Your task to perform on an android device: Go to settings Image 0: 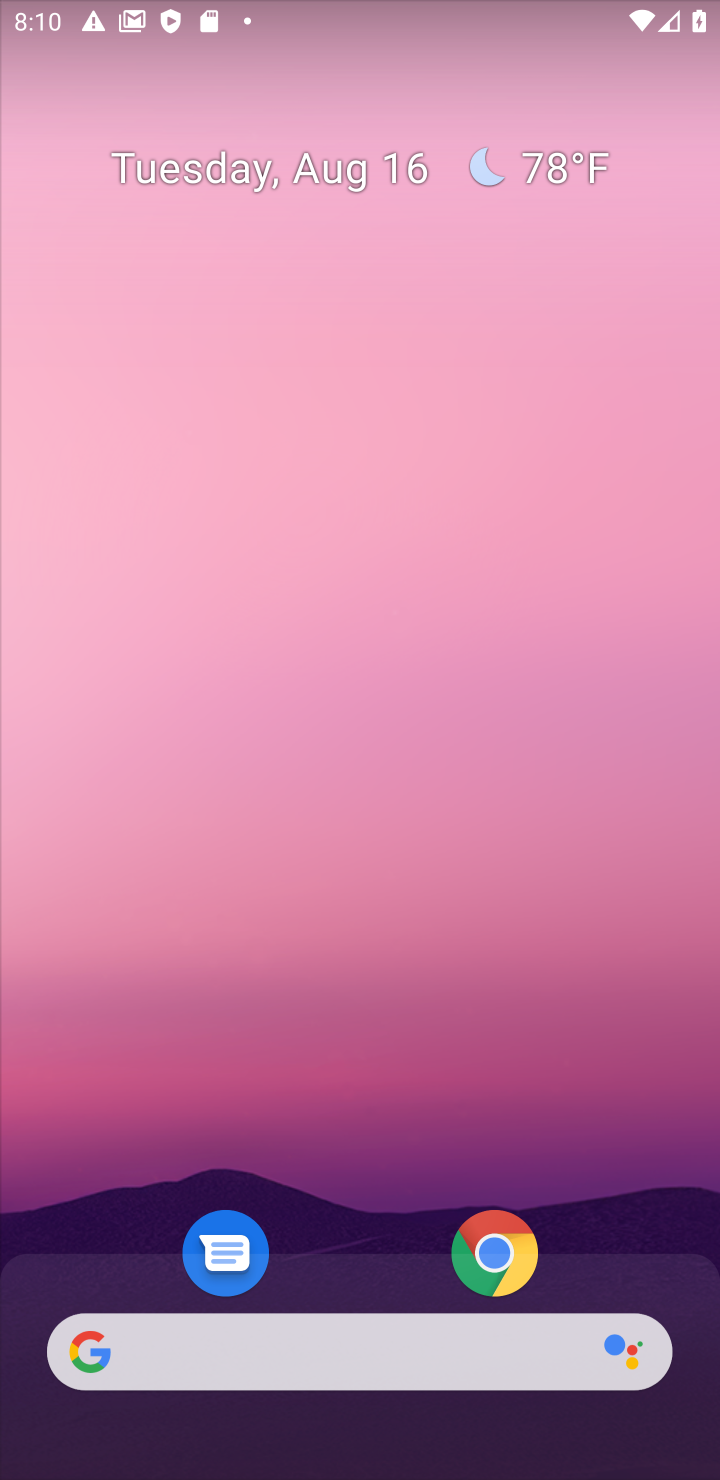
Step 0: click (630, 153)
Your task to perform on an android device: Go to settings Image 1: 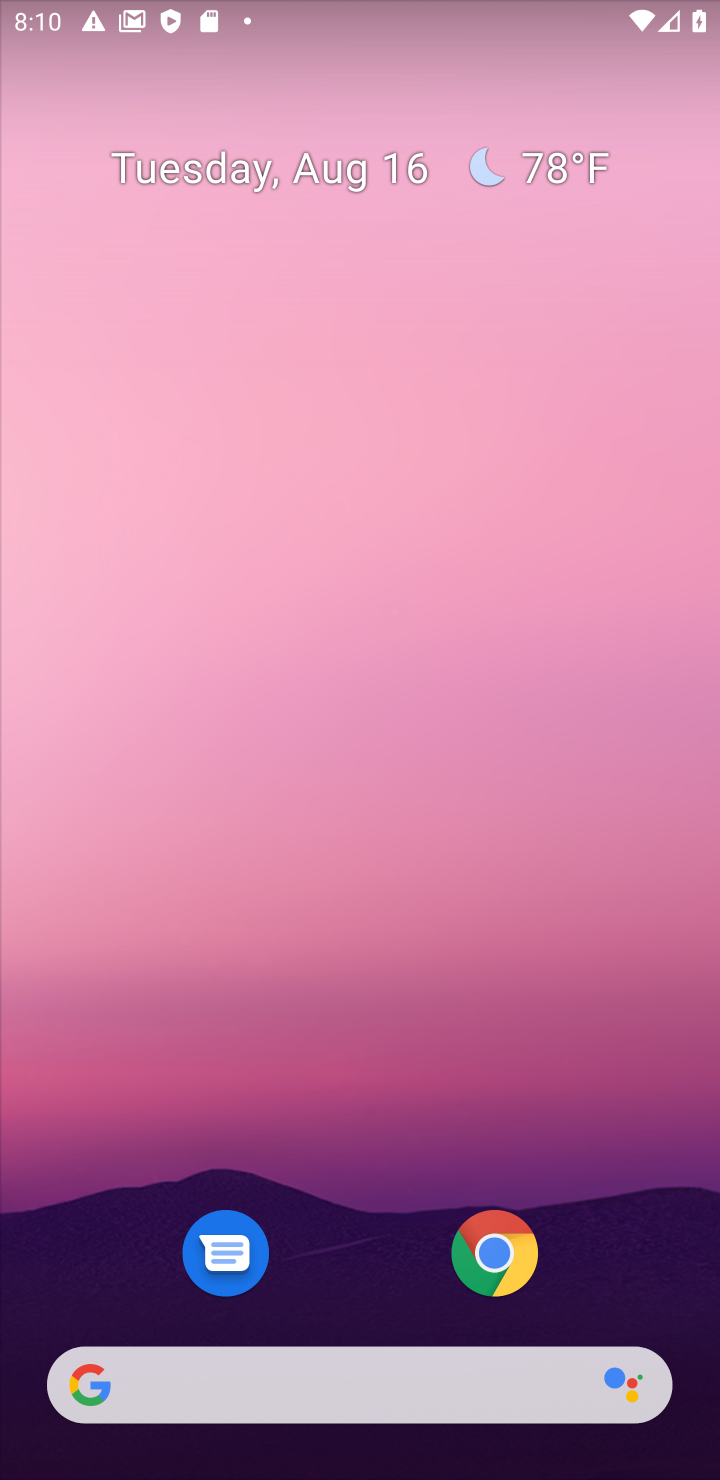
Step 1: drag from (374, 1383) to (673, 223)
Your task to perform on an android device: Go to settings Image 2: 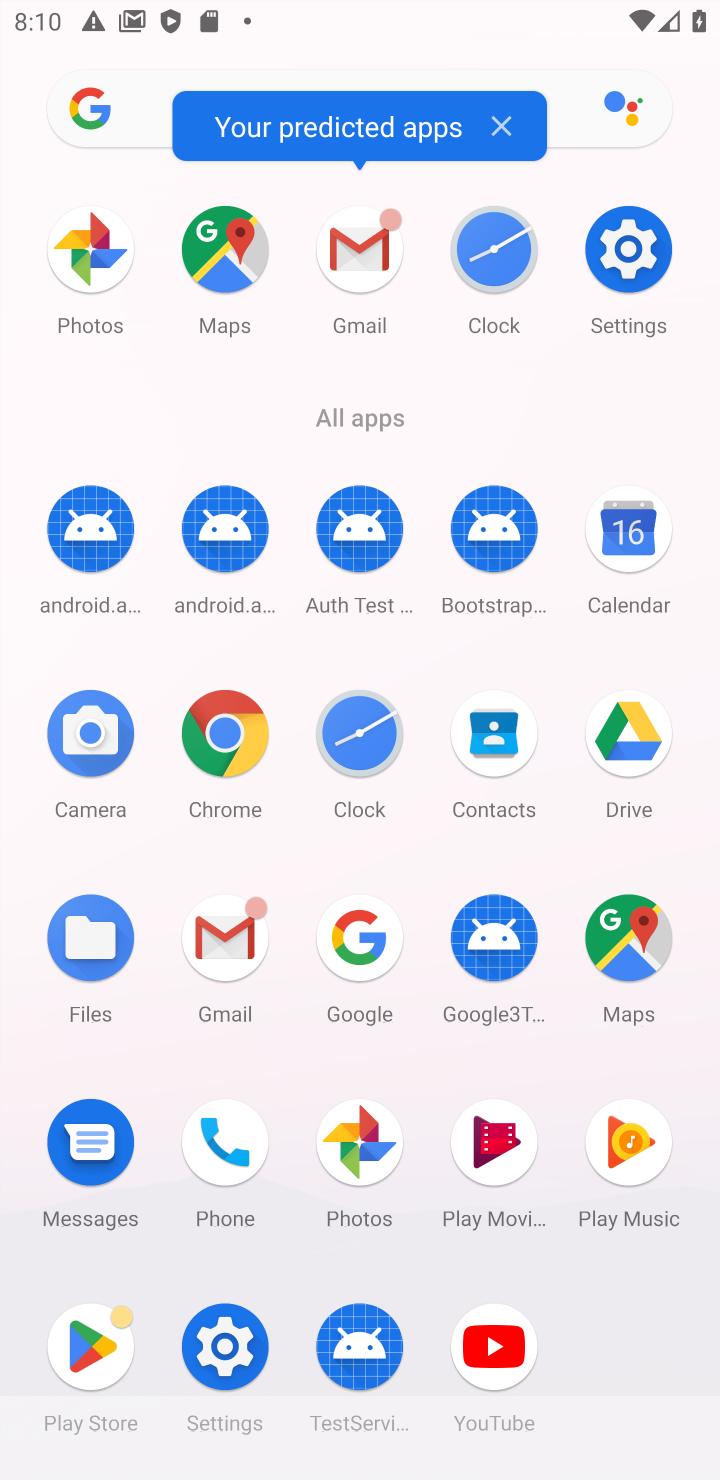
Step 2: click (218, 1350)
Your task to perform on an android device: Go to settings Image 3: 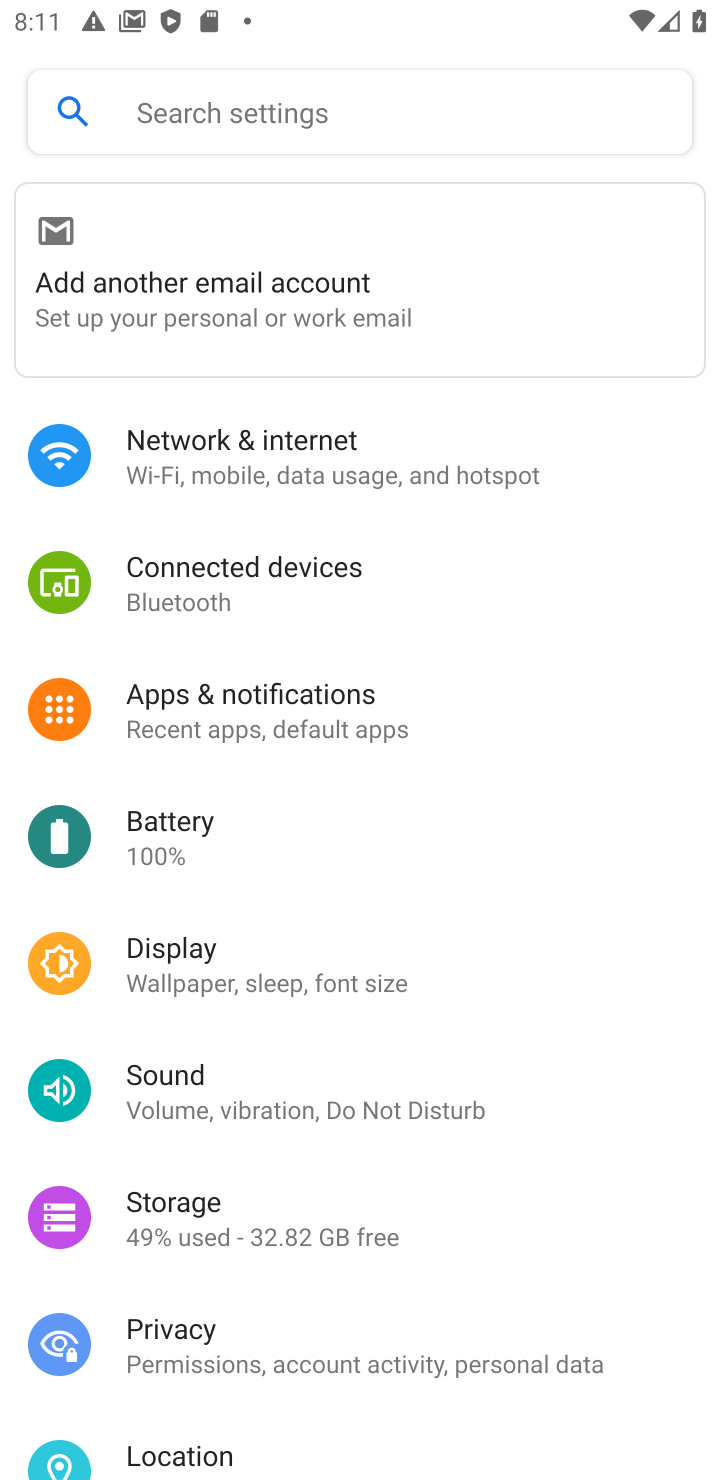
Step 3: task complete